Your task to perform on an android device: Go to privacy settings Image 0: 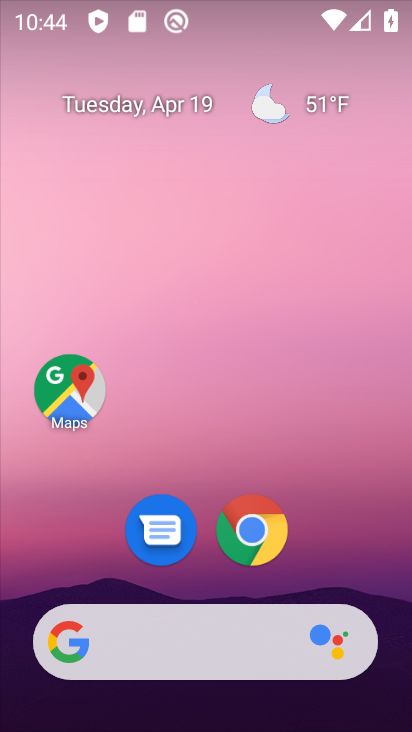
Step 0: click (241, 639)
Your task to perform on an android device: Go to privacy settings Image 1: 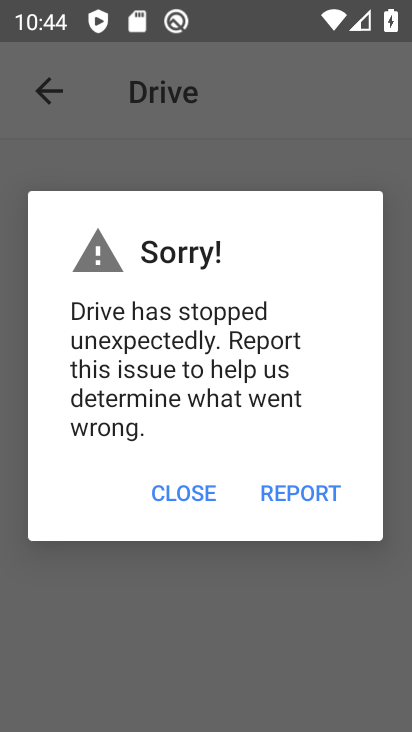
Step 1: press home button
Your task to perform on an android device: Go to privacy settings Image 2: 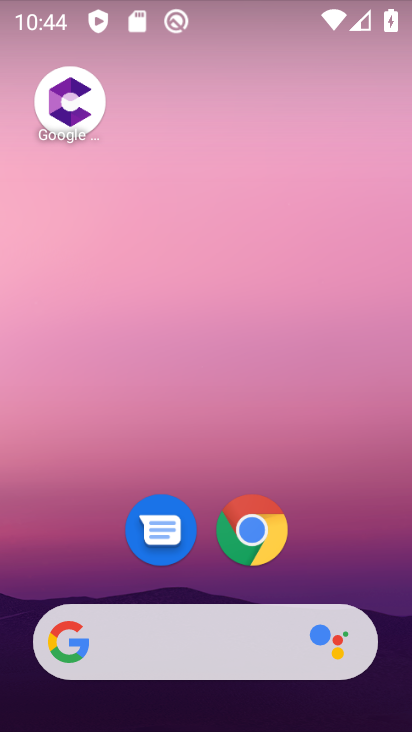
Step 2: drag from (346, 549) to (336, 70)
Your task to perform on an android device: Go to privacy settings Image 3: 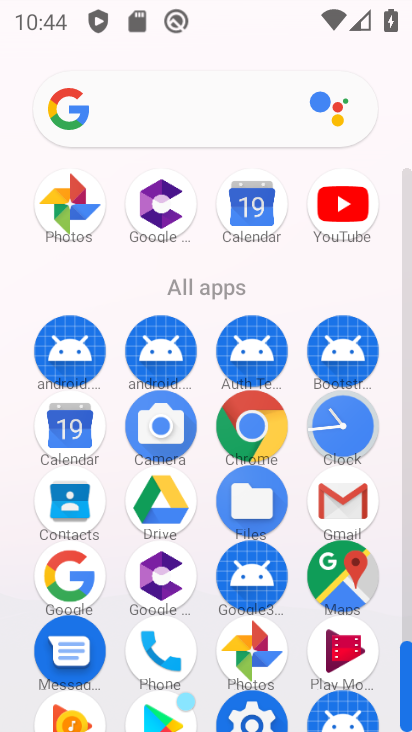
Step 3: click (249, 411)
Your task to perform on an android device: Go to privacy settings Image 4: 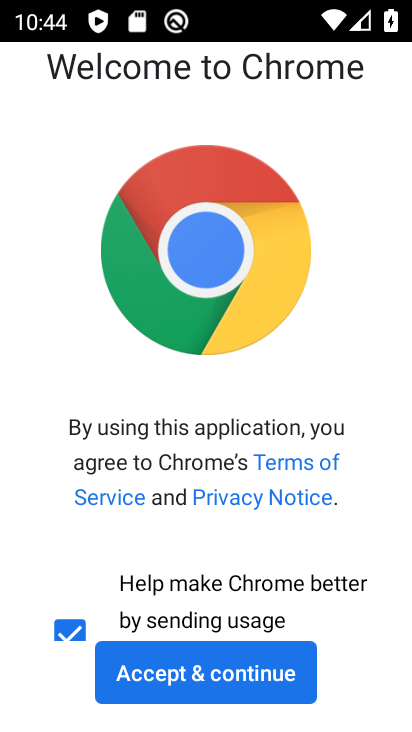
Step 4: click (224, 660)
Your task to perform on an android device: Go to privacy settings Image 5: 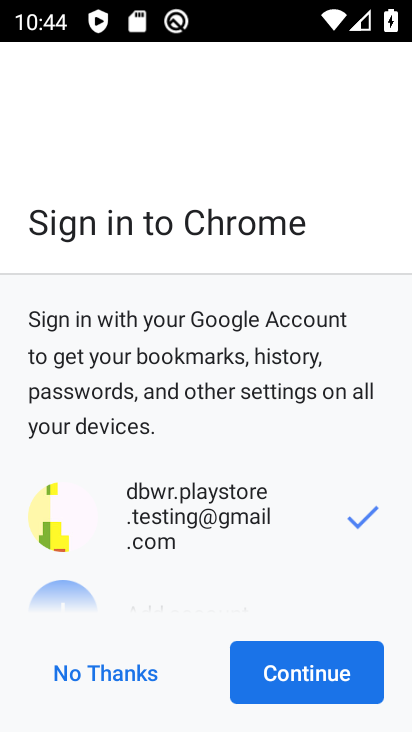
Step 5: click (259, 674)
Your task to perform on an android device: Go to privacy settings Image 6: 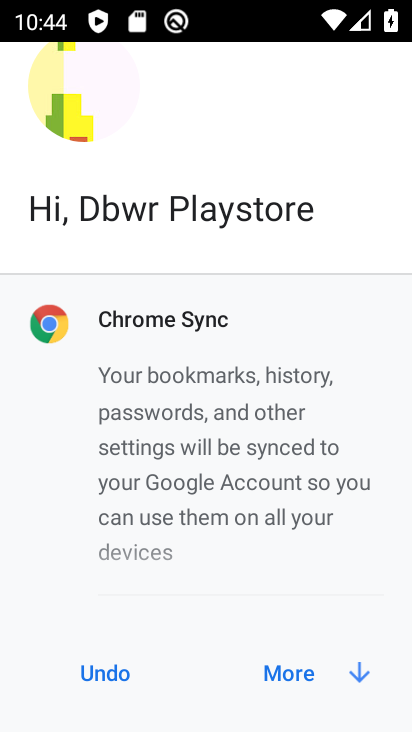
Step 6: click (287, 674)
Your task to perform on an android device: Go to privacy settings Image 7: 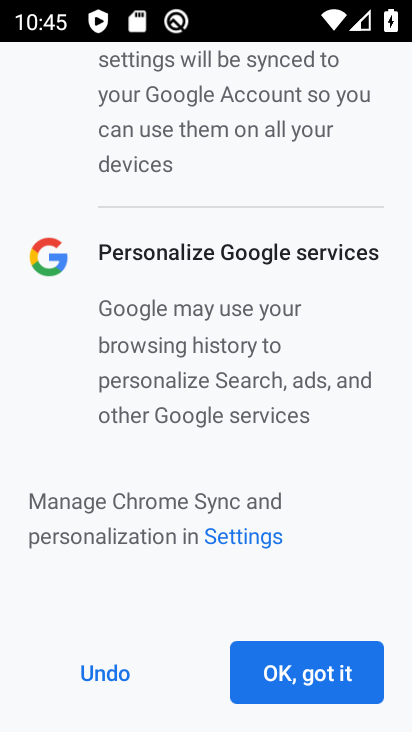
Step 7: click (294, 674)
Your task to perform on an android device: Go to privacy settings Image 8: 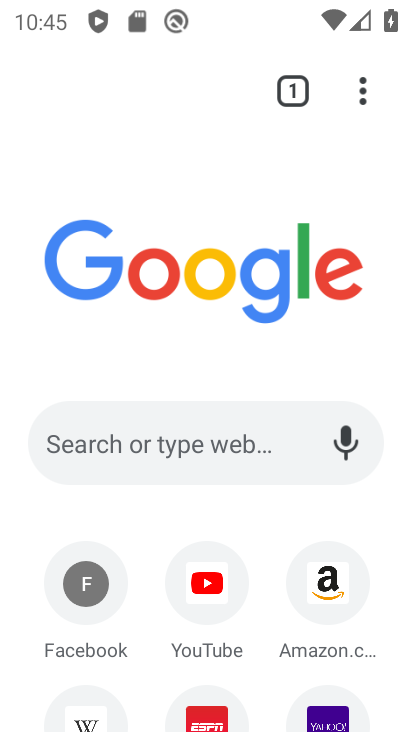
Step 8: click (367, 88)
Your task to perform on an android device: Go to privacy settings Image 9: 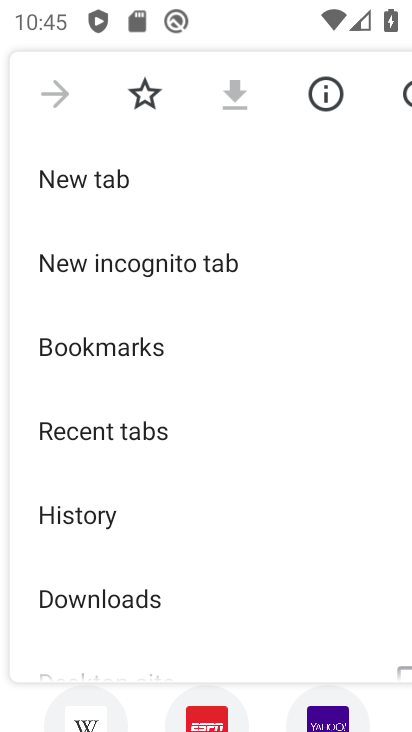
Step 9: drag from (206, 516) to (183, 170)
Your task to perform on an android device: Go to privacy settings Image 10: 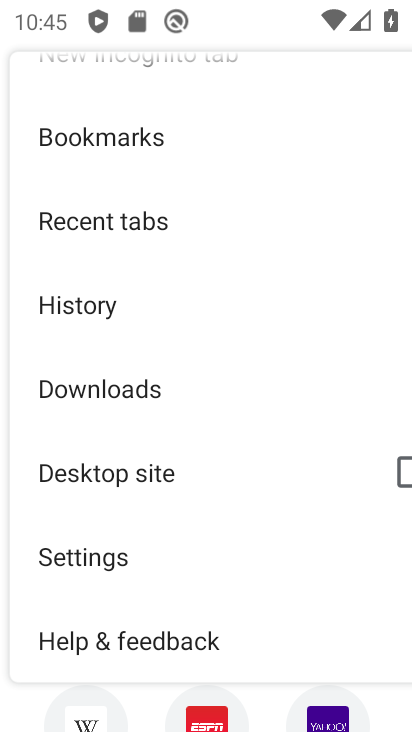
Step 10: click (116, 545)
Your task to perform on an android device: Go to privacy settings Image 11: 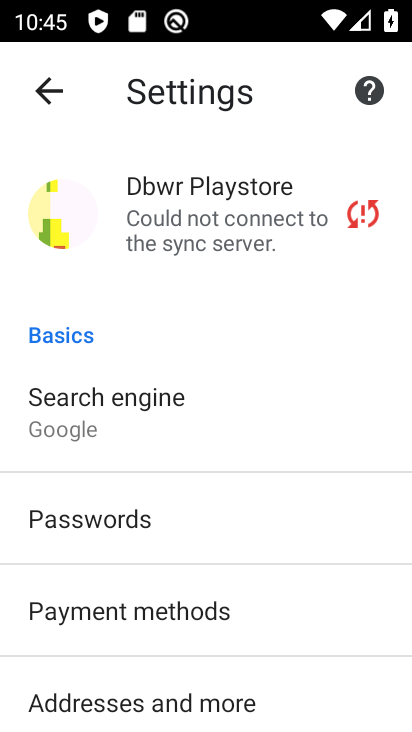
Step 11: drag from (274, 618) to (297, 158)
Your task to perform on an android device: Go to privacy settings Image 12: 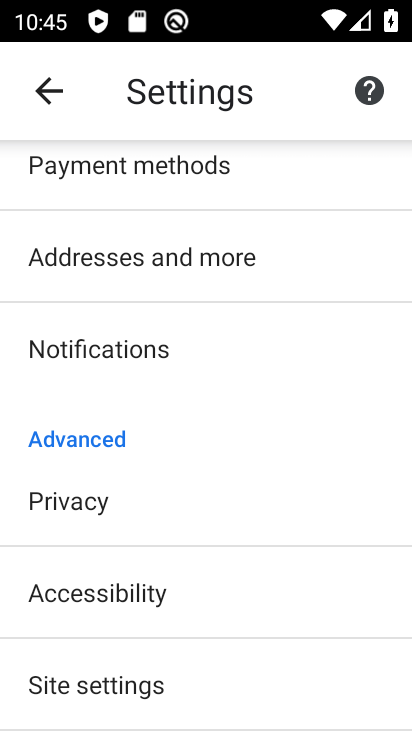
Step 12: click (142, 502)
Your task to perform on an android device: Go to privacy settings Image 13: 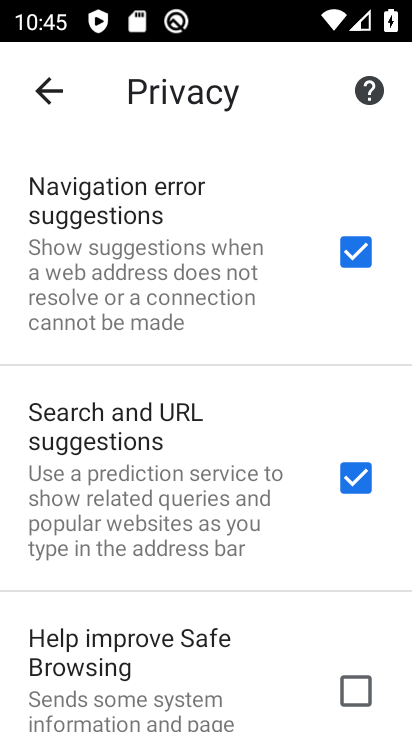
Step 13: task complete